Your task to perform on an android device: turn on showing notifications on the lock screen Image 0: 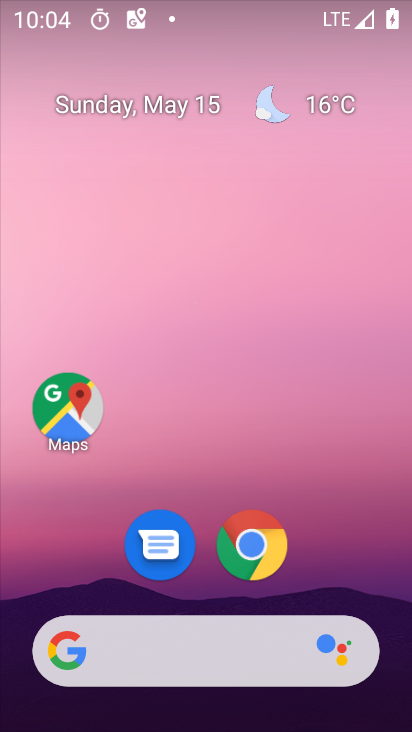
Step 0: drag from (372, 567) to (303, 31)
Your task to perform on an android device: turn on showing notifications on the lock screen Image 1: 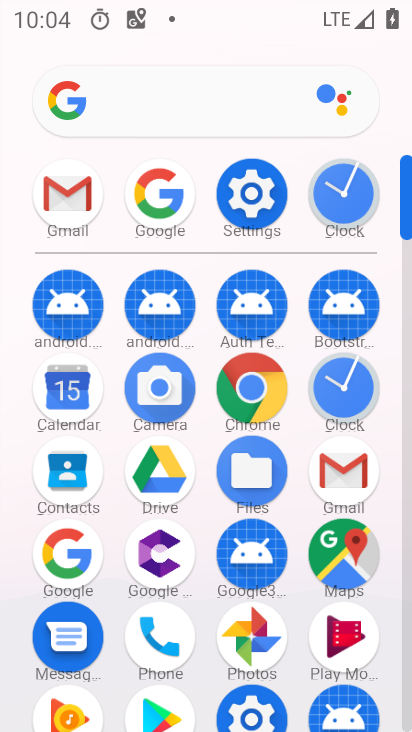
Step 1: click (250, 191)
Your task to perform on an android device: turn on showing notifications on the lock screen Image 2: 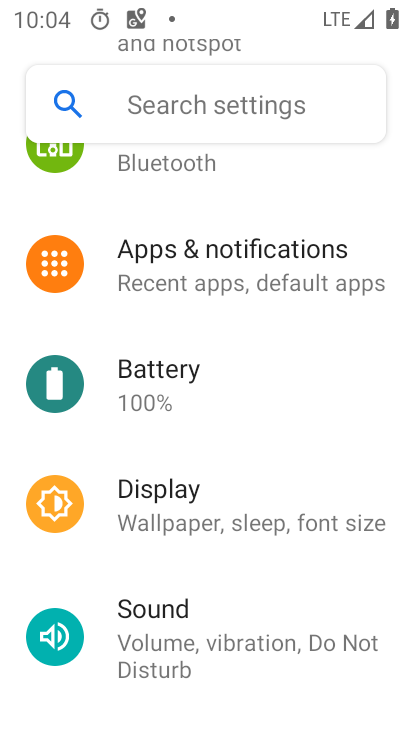
Step 2: click (191, 249)
Your task to perform on an android device: turn on showing notifications on the lock screen Image 3: 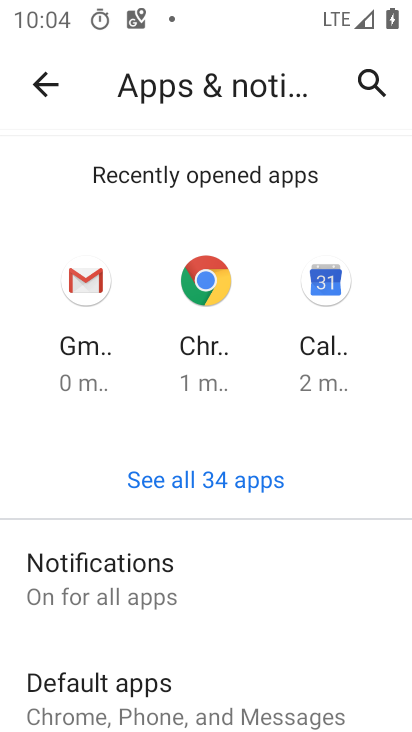
Step 3: click (112, 567)
Your task to perform on an android device: turn on showing notifications on the lock screen Image 4: 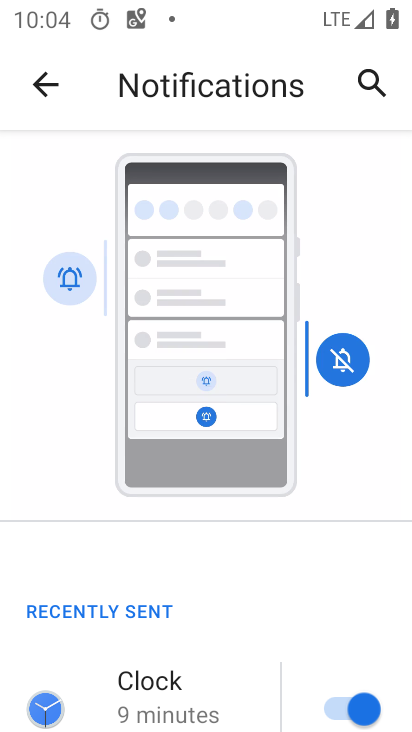
Step 4: drag from (183, 651) to (205, 491)
Your task to perform on an android device: turn on showing notifications on the lock screen Image 5: 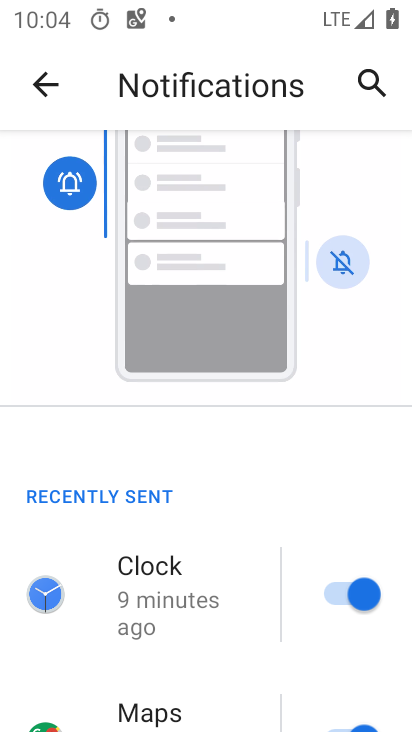
Step 5: drag from (156, 673) to (259, 461)
Your task to perform on an android device: turn on showing notifications on the lock screen Image 6: 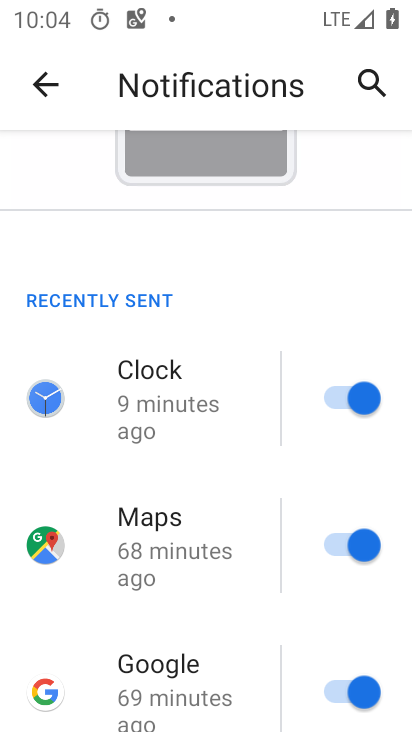
Step 6: drag from (147, 627) to (282, 450)
Your task to perform on an android device: turn on showing notifications on the lock screen Image 7: 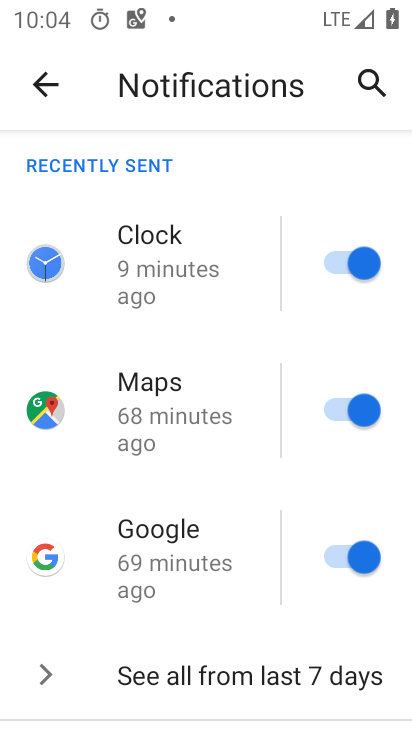
Step 7: drag from (131, 539) to (210, 397)
Your task to perform on an android device: turn on showing notifications on the lock screen Image 8: 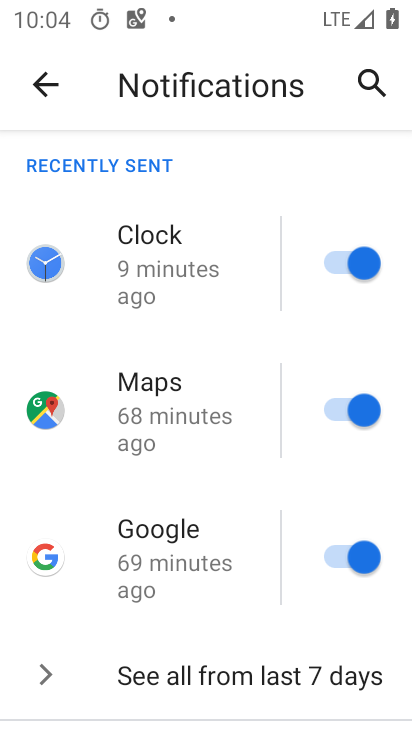
Step 8: drag from (158, 636) to (181, 317)
Your task to perform on an android device: turn on showing notifications on the lock screen Image 9: 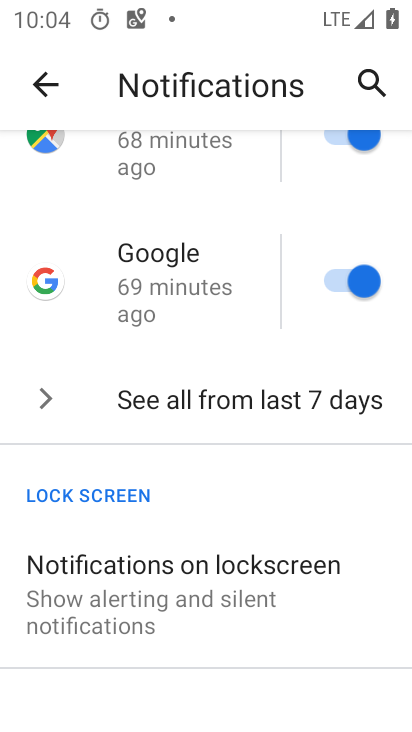
Step 9: click (96, 562)
Your task to perform on an android device: turn on showing notifications on the lock screen Image 10: 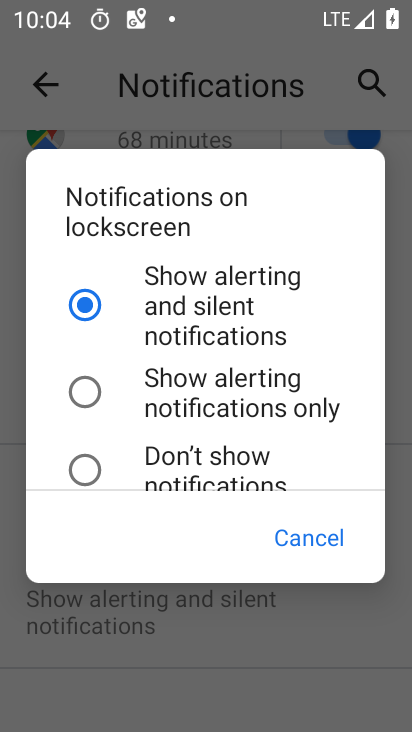
Step 10: click (89, 302)
Your task to perform on an android device: turn on showing notifications on the lock screen Image 11: 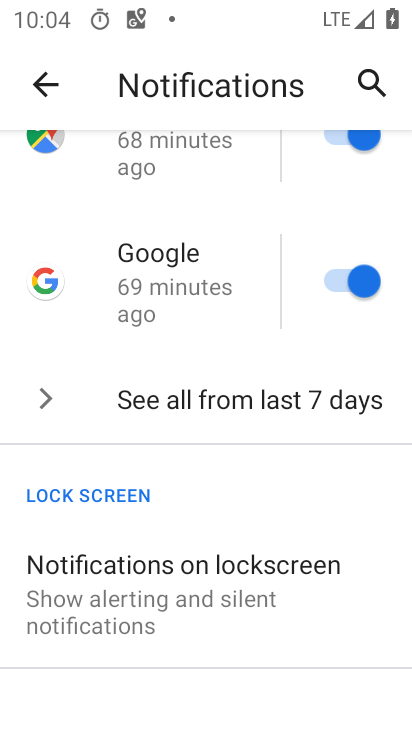
Step 11: task complete